Your task to perform on an android device: What's US dollar exchange rate against the Japanese Yen? Image 0: 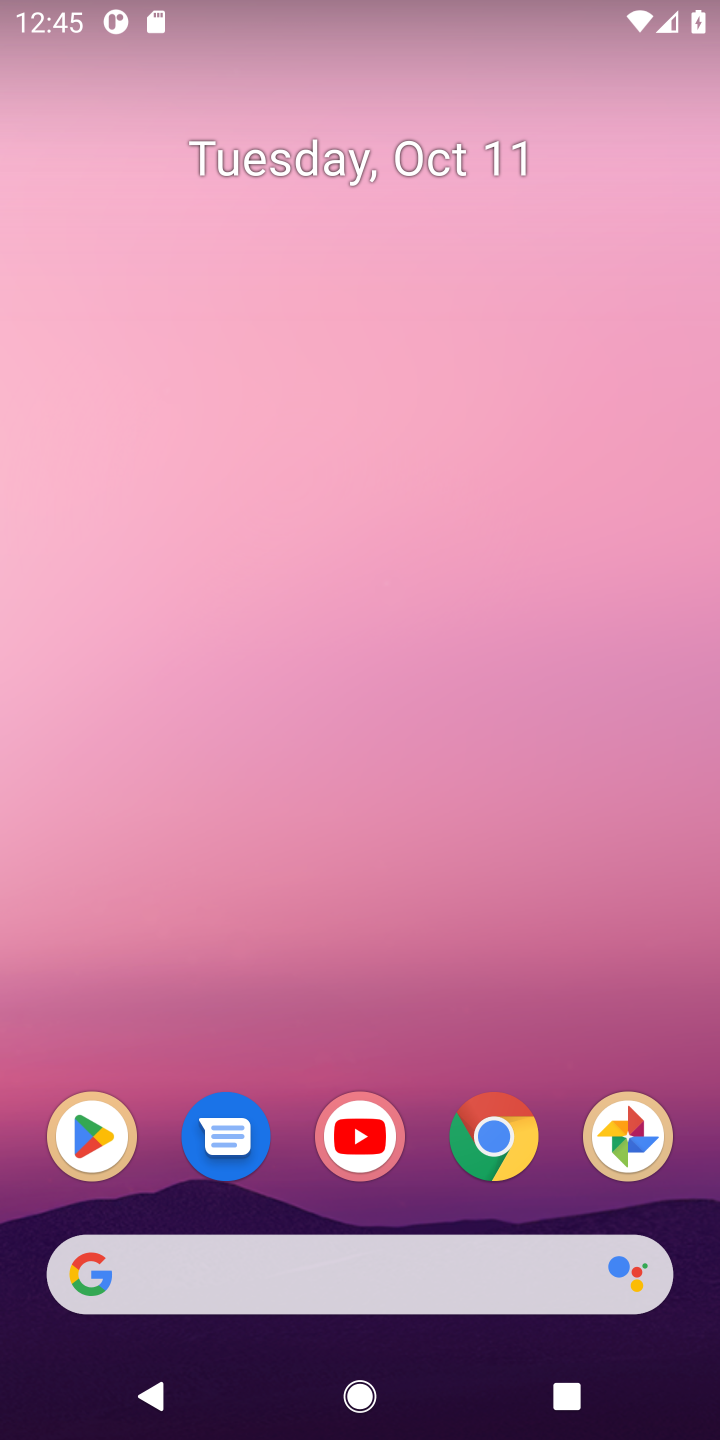
Step 0: press home button
Your task to perform on an android device: What's US dollar exchange rate against the Japanese Yen? Image 1: 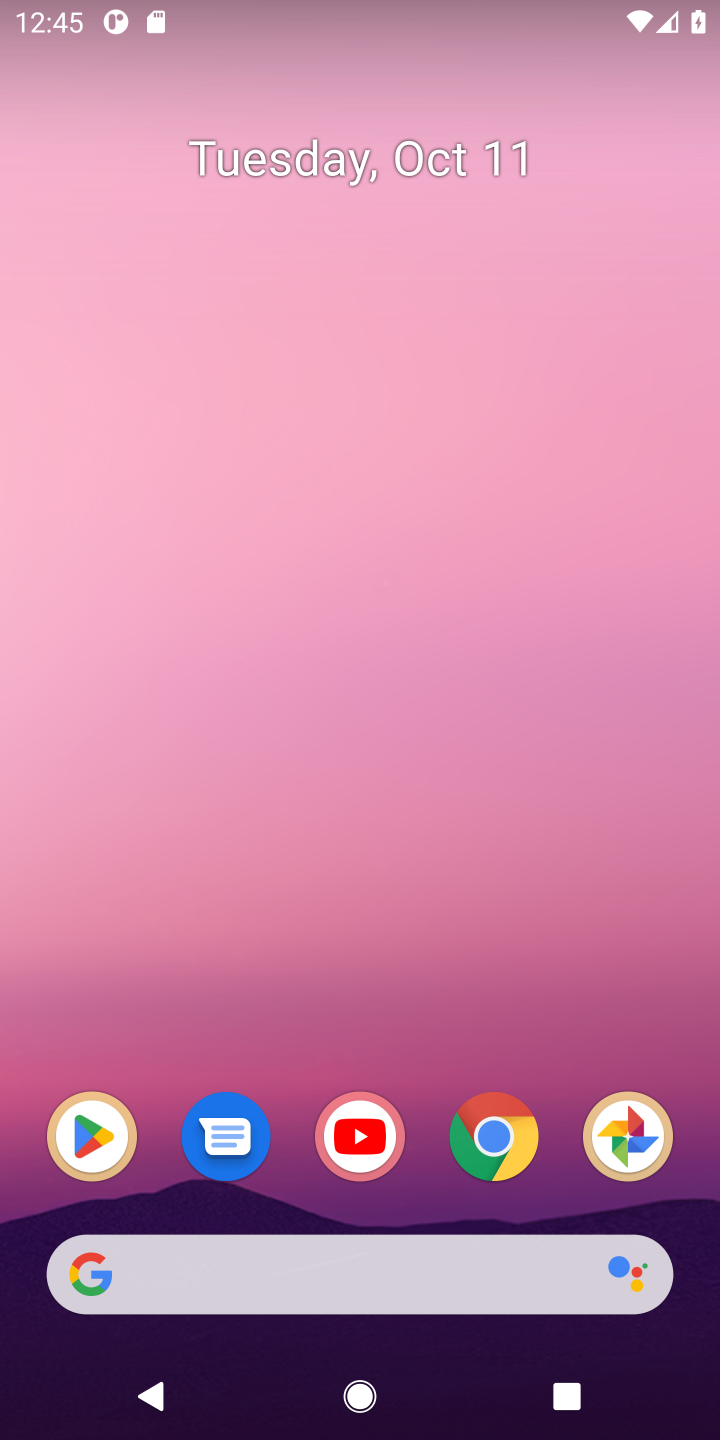
Step 1: click (381, 1277)
Your task to perform on an android device: What's US dollar exchange rate against the Japanese Yen? Image 2: 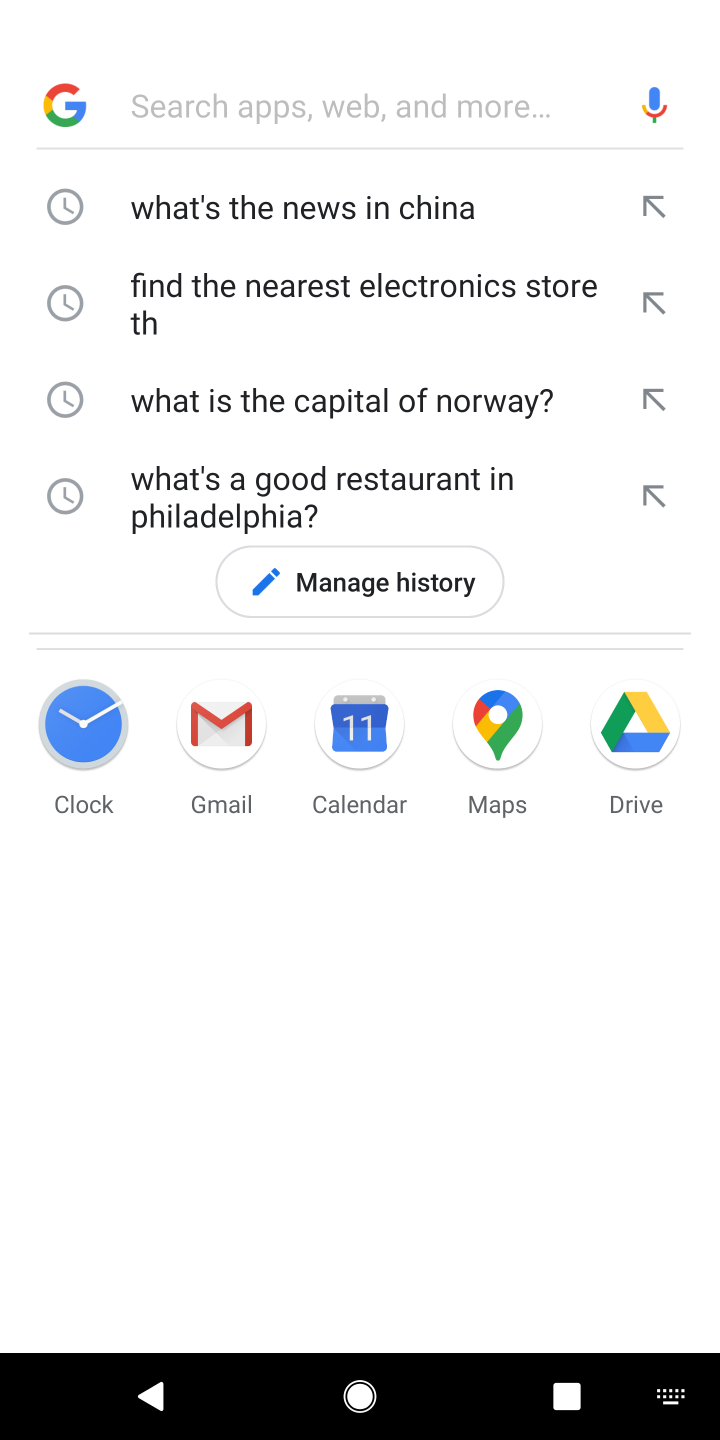
Step 2: type "US dollar exchange rate against the Japanese Yen?"
Your task to perform on an android device: What's US dollar exchange rate against the Japanese Yen? Image 3: 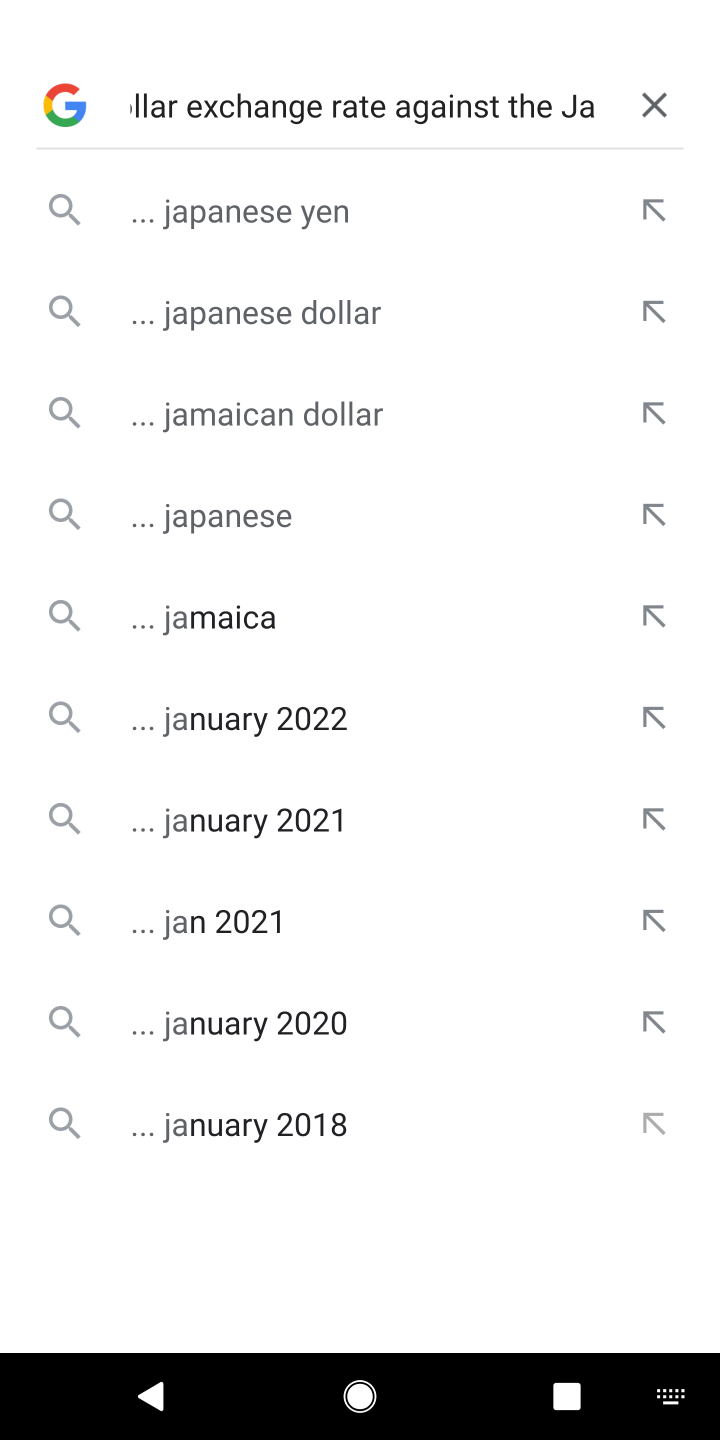
Step 3: press enter
Your task to perform on an android device: What's US dollar exchange rate against the Japanese Yen? Image 4: 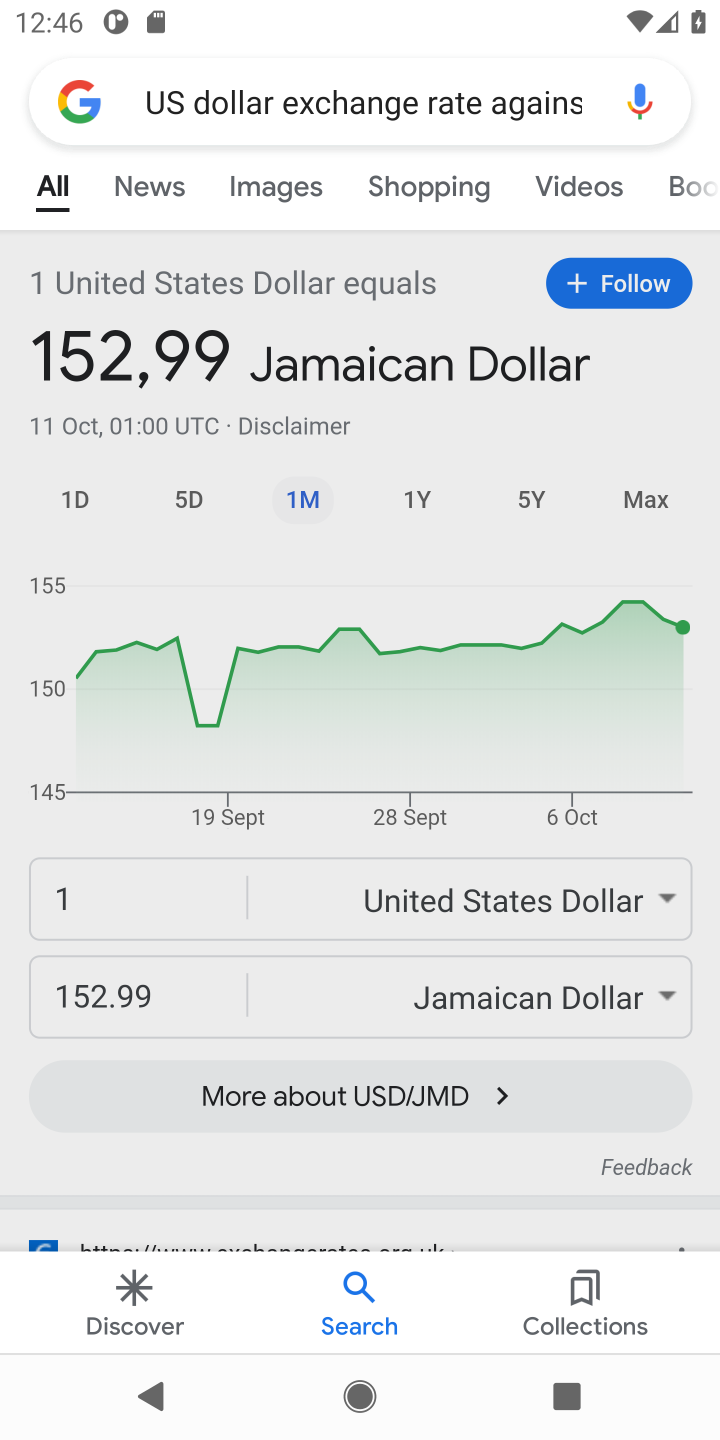
Step 4: task complete